Your task to perform on an android device: Open Chrome and go to settings Image 0: 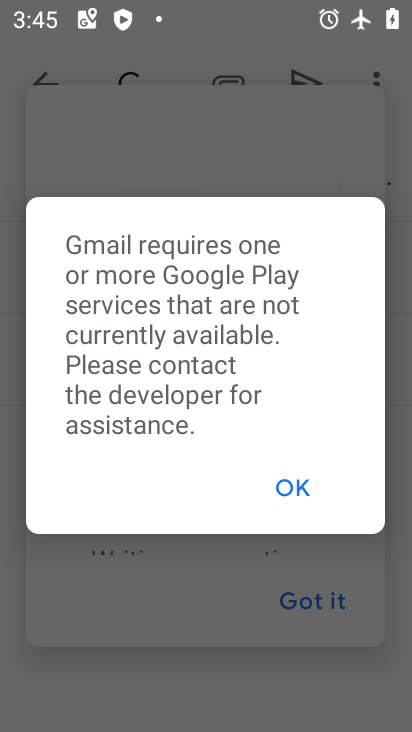
Step 0: press home button
Your task to perform on an android device: Open Chrome and go to settings Image 1: 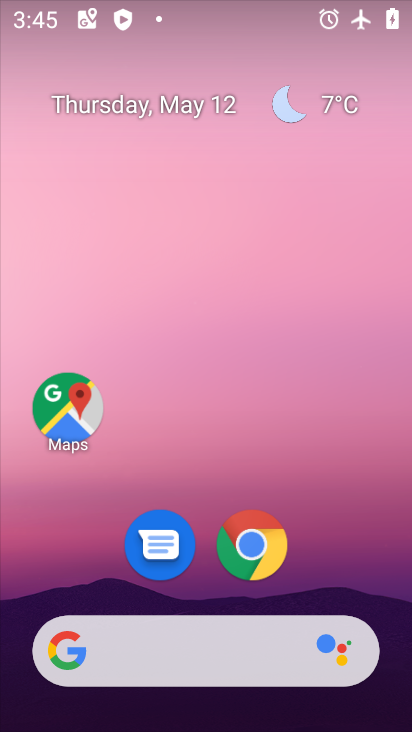
Step 1: click (247, 547)
Your task to perform on an android device: Open Chrome and go to settings Image 2: 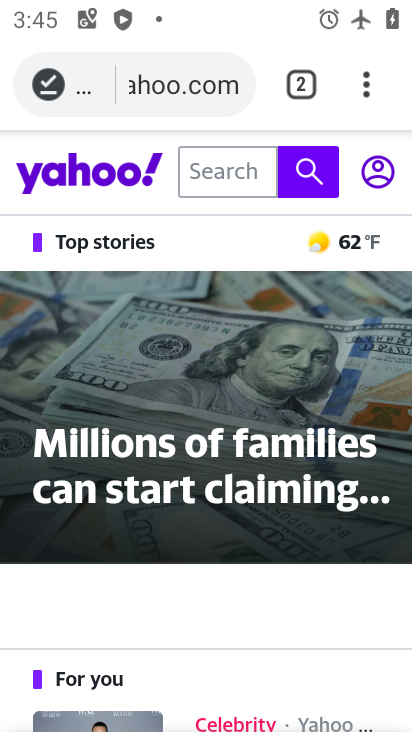
Step 2: click (364, 88)
Your task to perform on an android device: Open Chrome and go to settings Image 3: 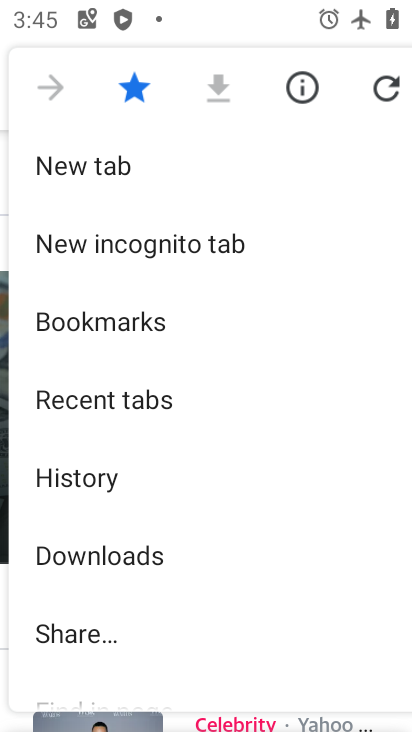
Step 3: drag from (190, 602) to (265, 263)
Your task to perform on an android device: Open Chrome and go to settings Image 4: 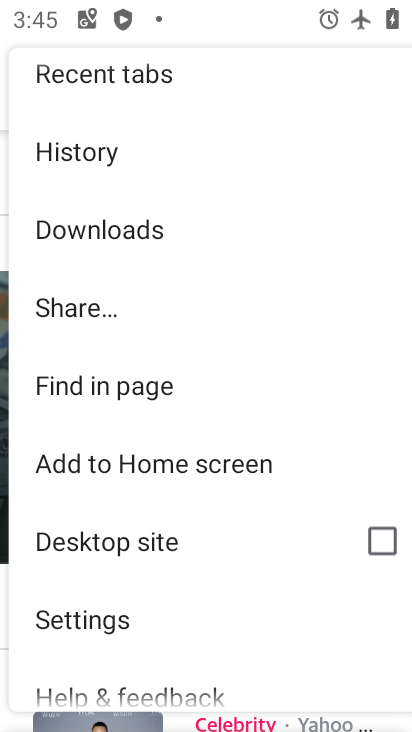
Step 4: click (81, 615)
Your task to perform on an android device: Open Chrome and go to settings Image 5: 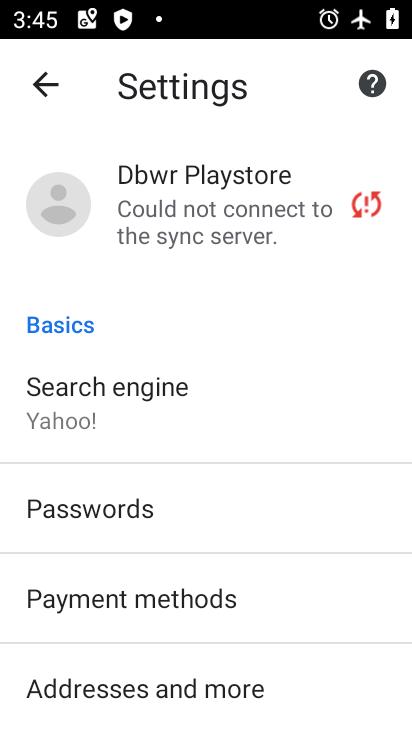
Step 5: task complete